Your task to perform on an android device: turn on bluetooth scan Image 0: 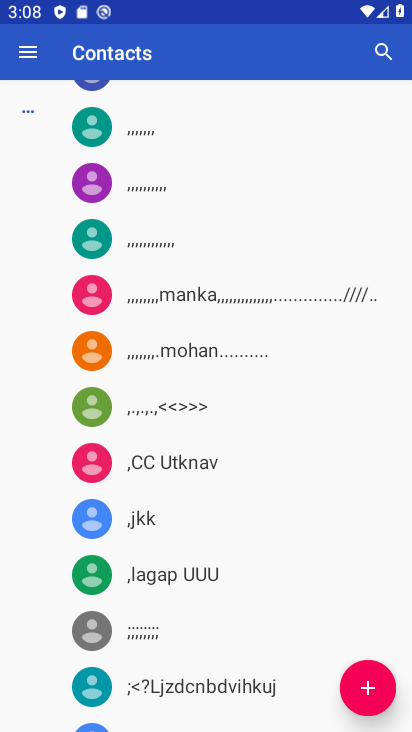
Step 0: press home button
Your task to perform on an android device: turn on bluetooth scan Image 1: 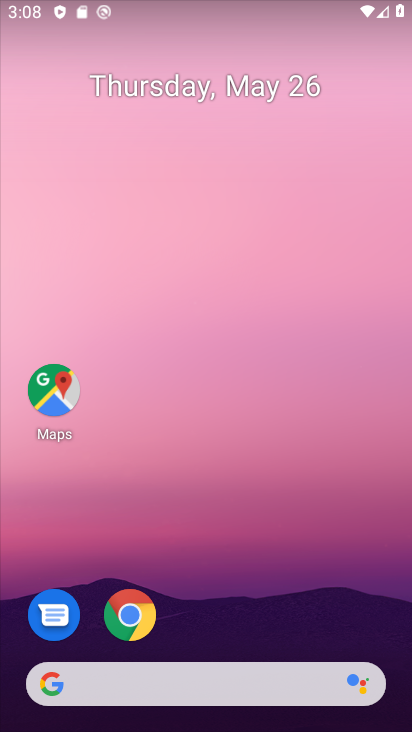
Step 1: drag from (349, 527) to (349, 8)
Your task to perform on an android device: turn on bluetooth scan Image 2: 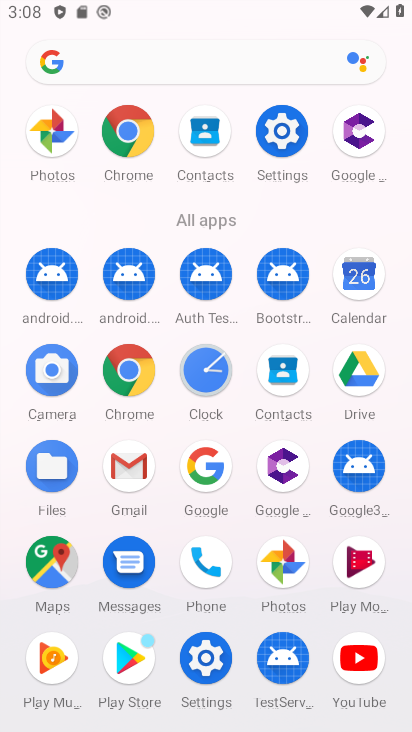
Step 2: click (284, 144)
Your task to perform on an android device: turn on bluetooth scan Image 3: 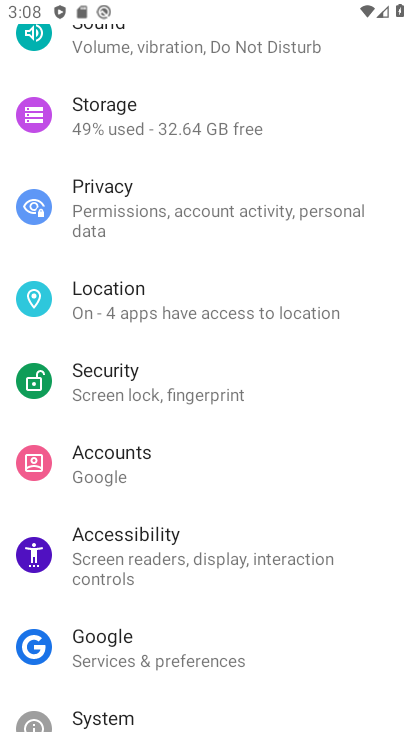
Step 3: drag from (248, 113) to (218, 442)
Your task to perform on an android device: turn on bluetooth scan Image 4: 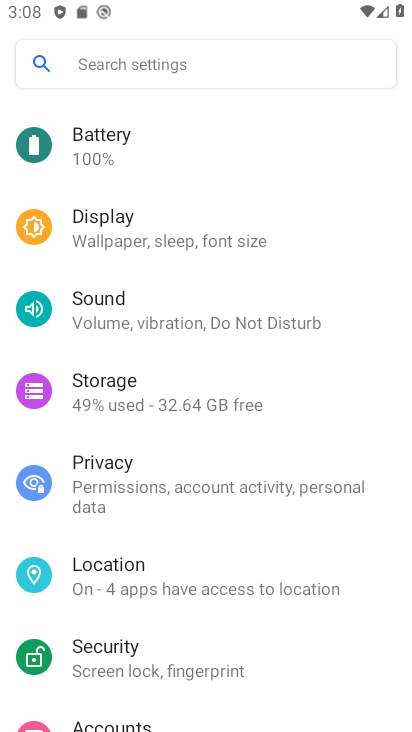
Step 4: drag from (148, 634) to (108, 628)
Your task to perform on an android device: turn on bluetooth scan Image 5: 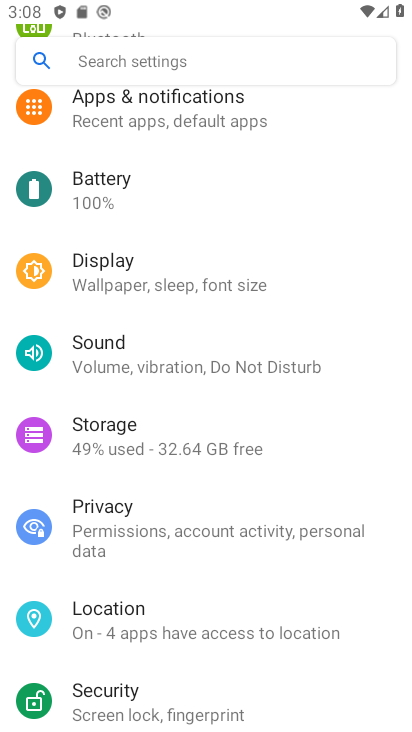
Step 5: drag from (80, 605) to (54, 345)
Your task to perform on an android device: turn on bluetooth scan Image 6: 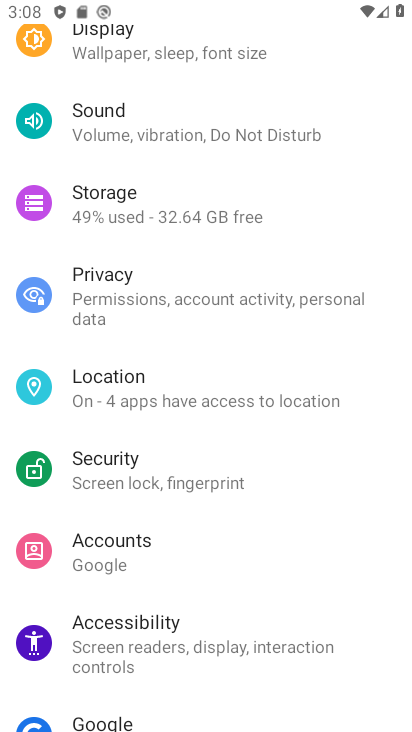
Step 6: click (71, 362)
Your task to perform on an android device: turn on bluetooth scan Image 7: 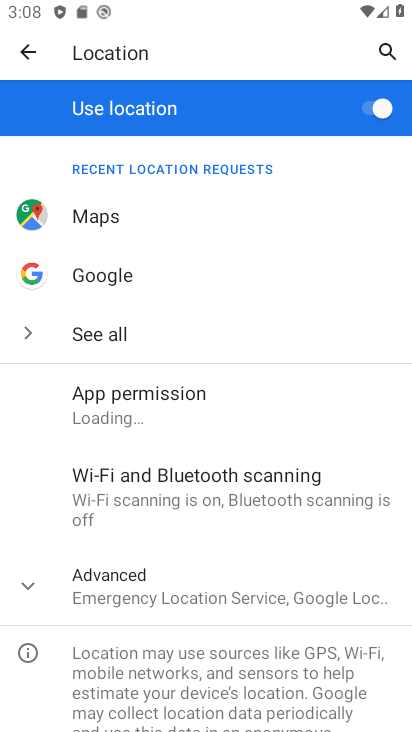
Step 7: click (213, 506)
Your task to perform on an android device: turn on bluetooth scan Image 8: 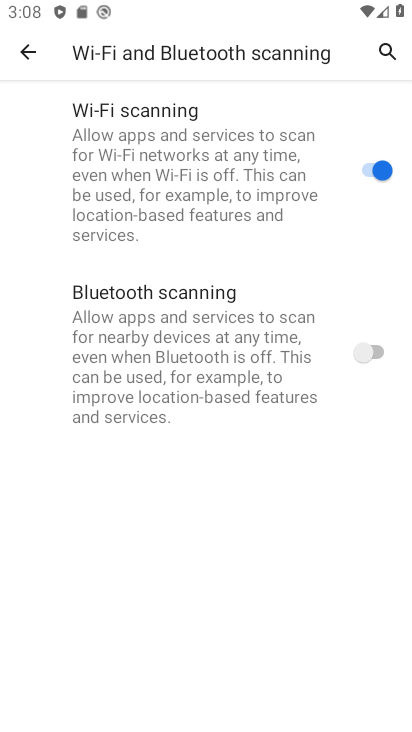
Step 8: click (371, 340)
Your task to perform on an android device: turn on bluetooth scan Image 9: 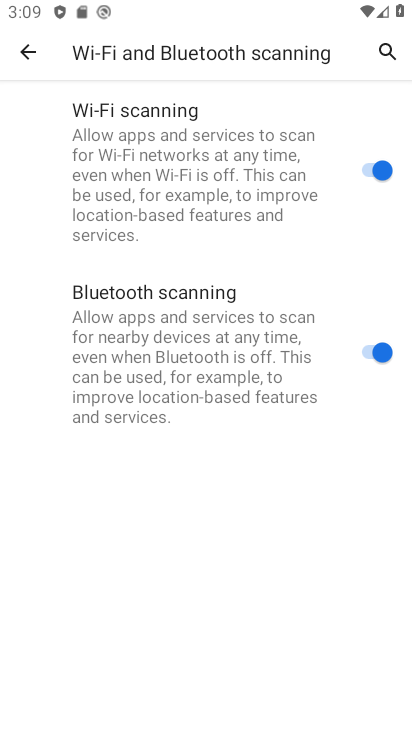
Step 9: task complete